Your task to perform on an android device: Open calendar and show me the third week of next month Image 0: 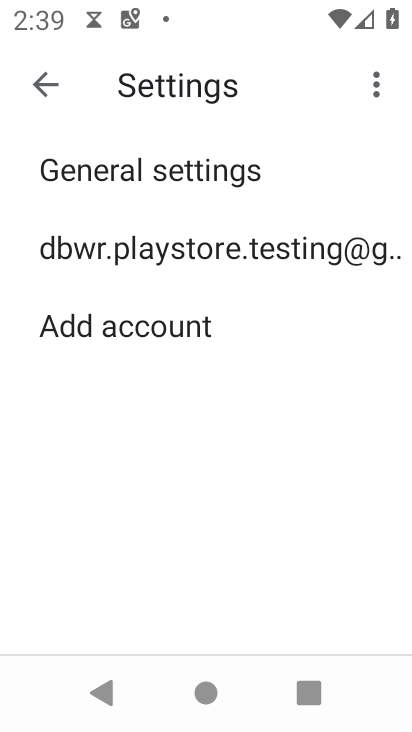
Step 0: press home button
Your task to perform on an android device: Open calendar and show me the third week of next month Image 1: 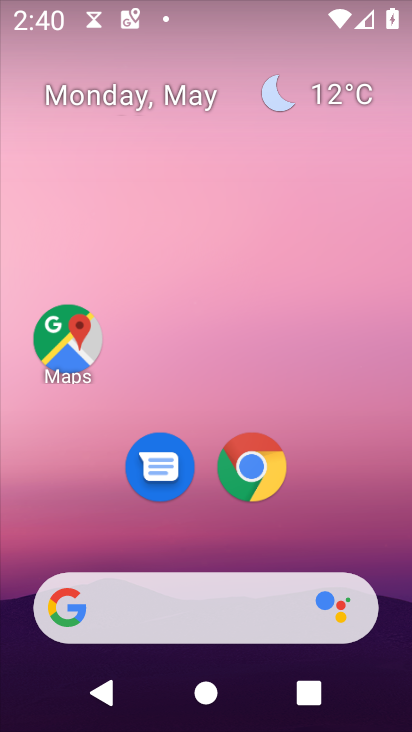
Step 1: drag from (333, 522) to (376, 21)
Your task to perform on an android device: Open calendar and show me the third week of next month Image 2: 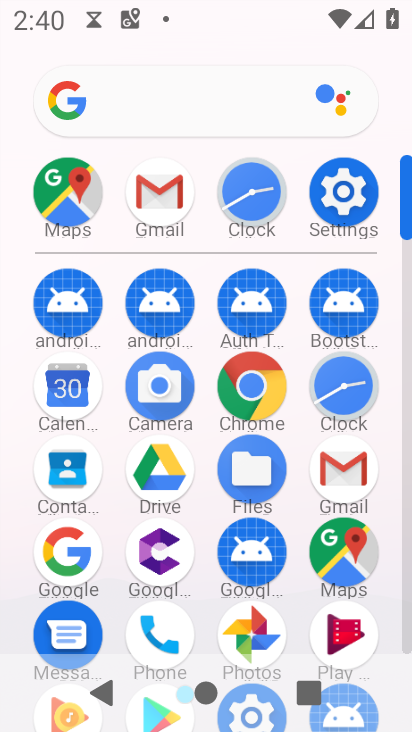
Step 2: click (84, 385)
Your task to perform on an android device: Open calendar and show me the third week of next month Image 3: 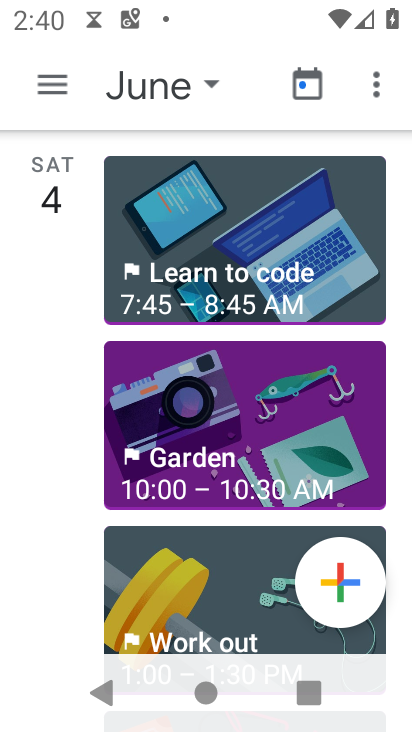
Step 3: click (57, 74)
Your task to perform on an android device: Open calendar and show me the third week of next month Image 4: 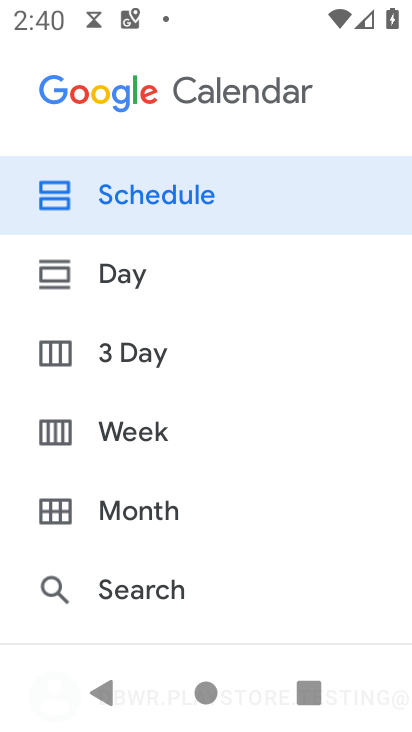
Step 4: click (147, 426)
Your task to perform on an android device: Open calendar and show me the third week of next month Image 5: 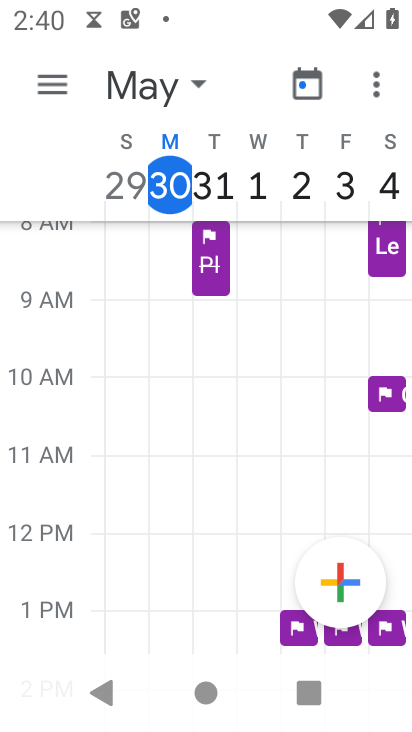
Step 5: click (185, 84)
Your task to perform on an android device: Open calendar and show me the third week of next month Image 6: 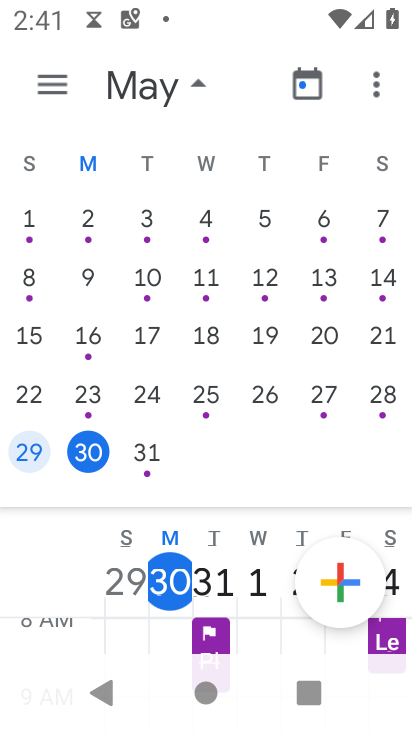
Step 6: drag from (368, 290) to (9, 280)
Your task to perform on an android device: Open calendar and show me the third week of next month Image 7: 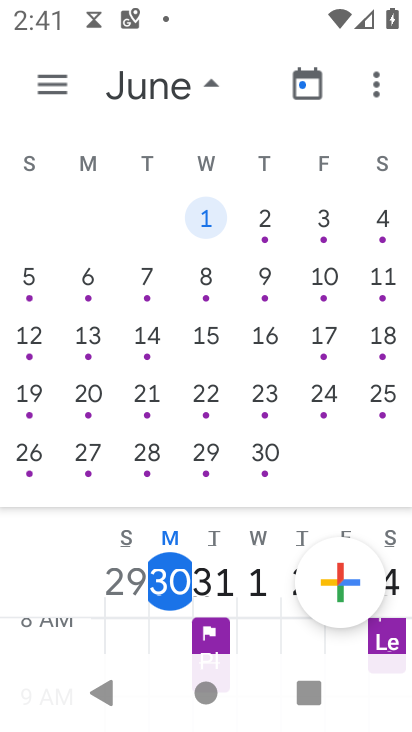
Step 7: click (205, 336)
Your task to perform on an android device: Open calendar and show me the third week of next month Image 8: 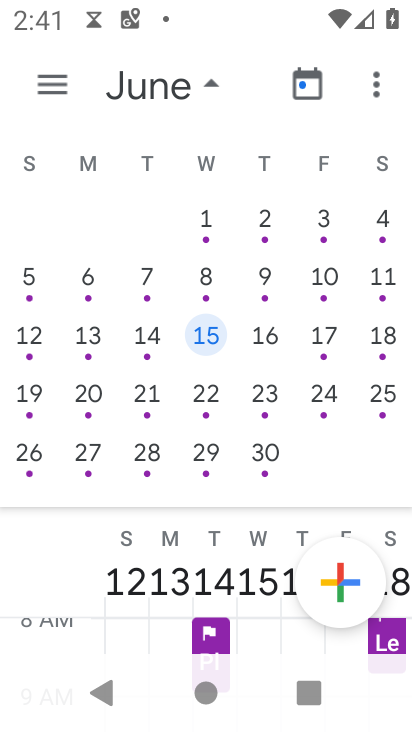
Step 8: task complete